Your task to perform on an android device: check storage Image 0: 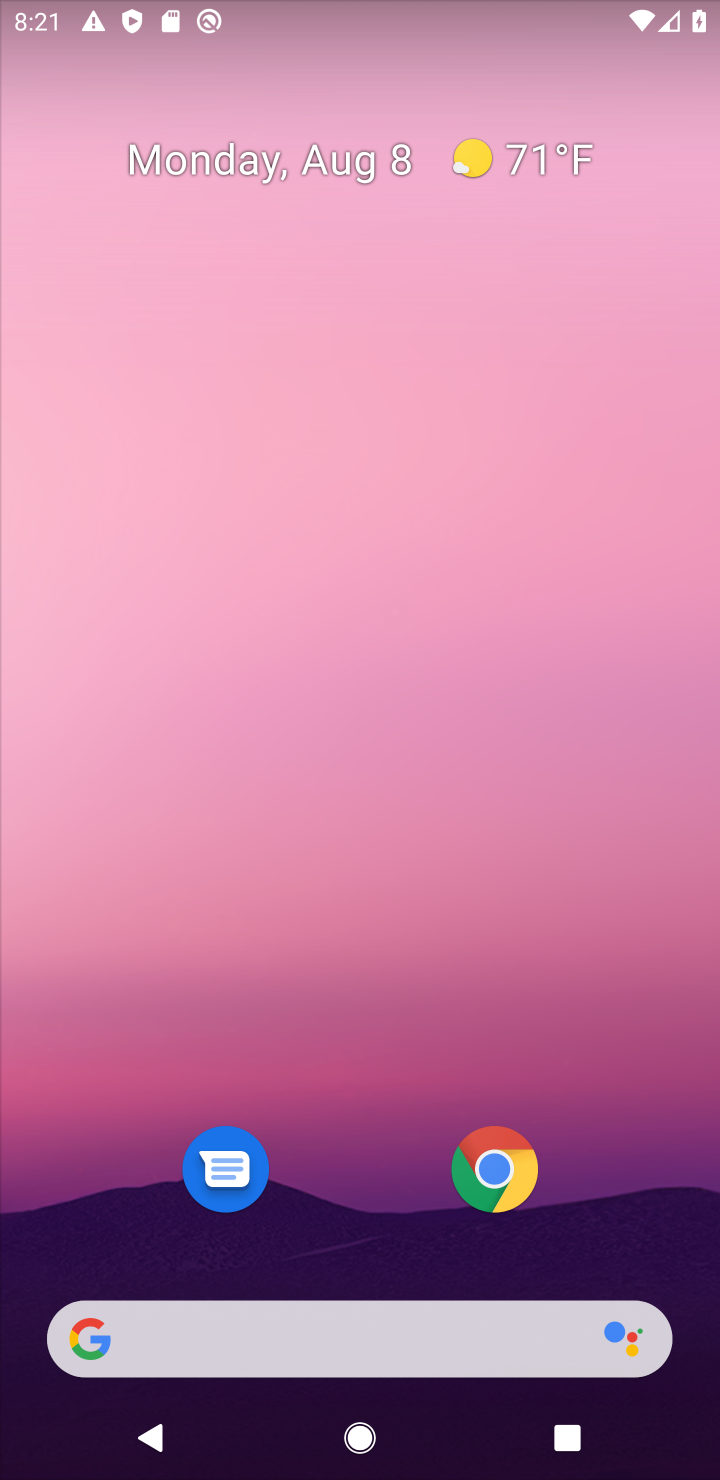
Step 0: drag from (456, 1214) to (533, 51)
Your task to perform on an android device: check storage Image 1: 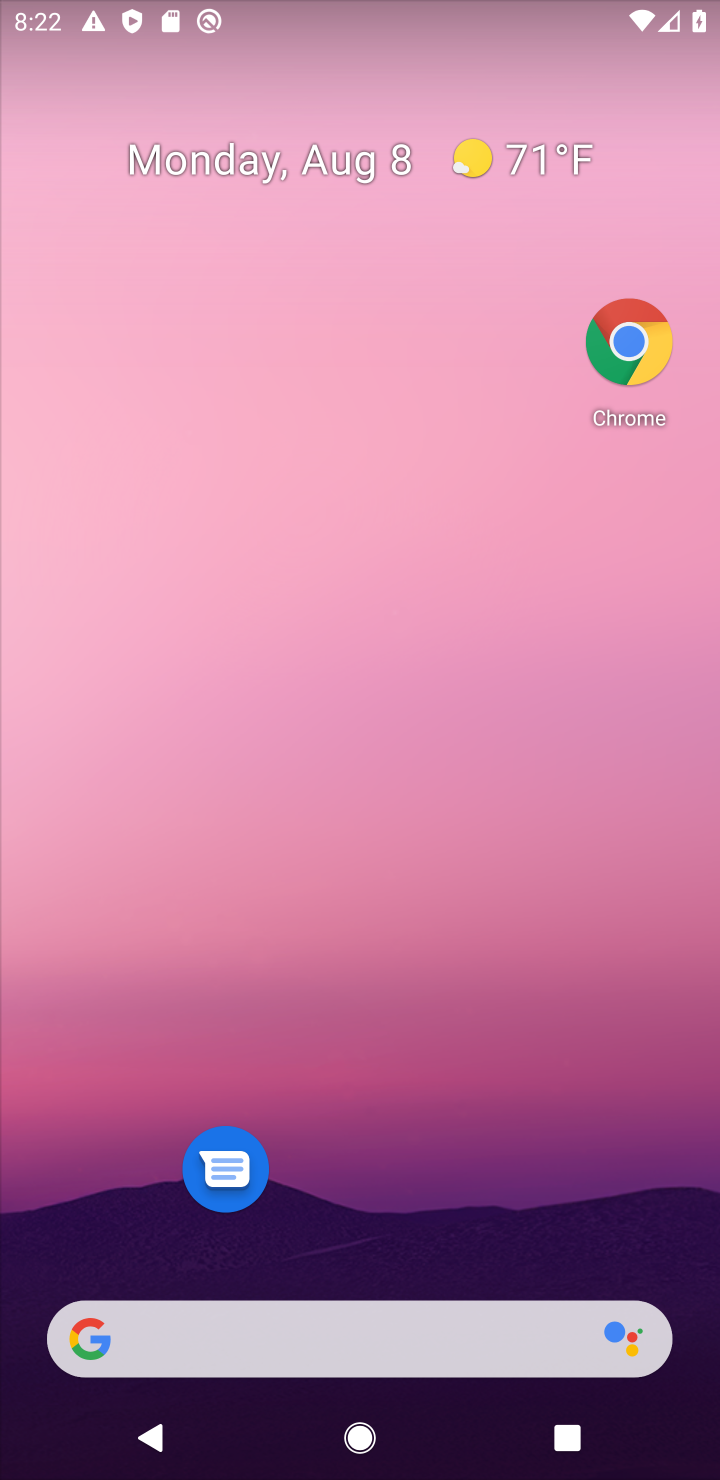
Step 1: drag from (406, 1143) to (603, 6)
Your task to perform on an android device: check storage Image 2: 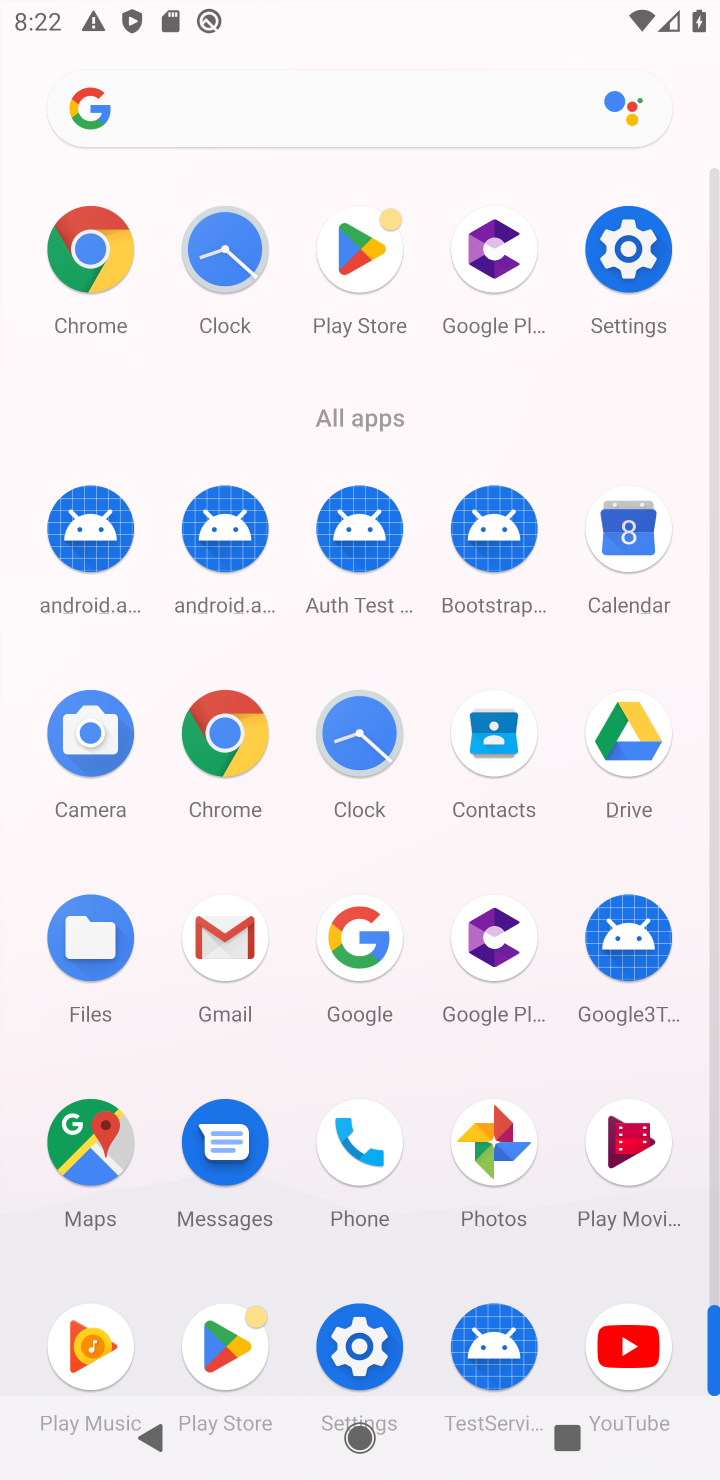
Step 2: click (642, 267)
Your task to perform on an android device: check storage Image 3: 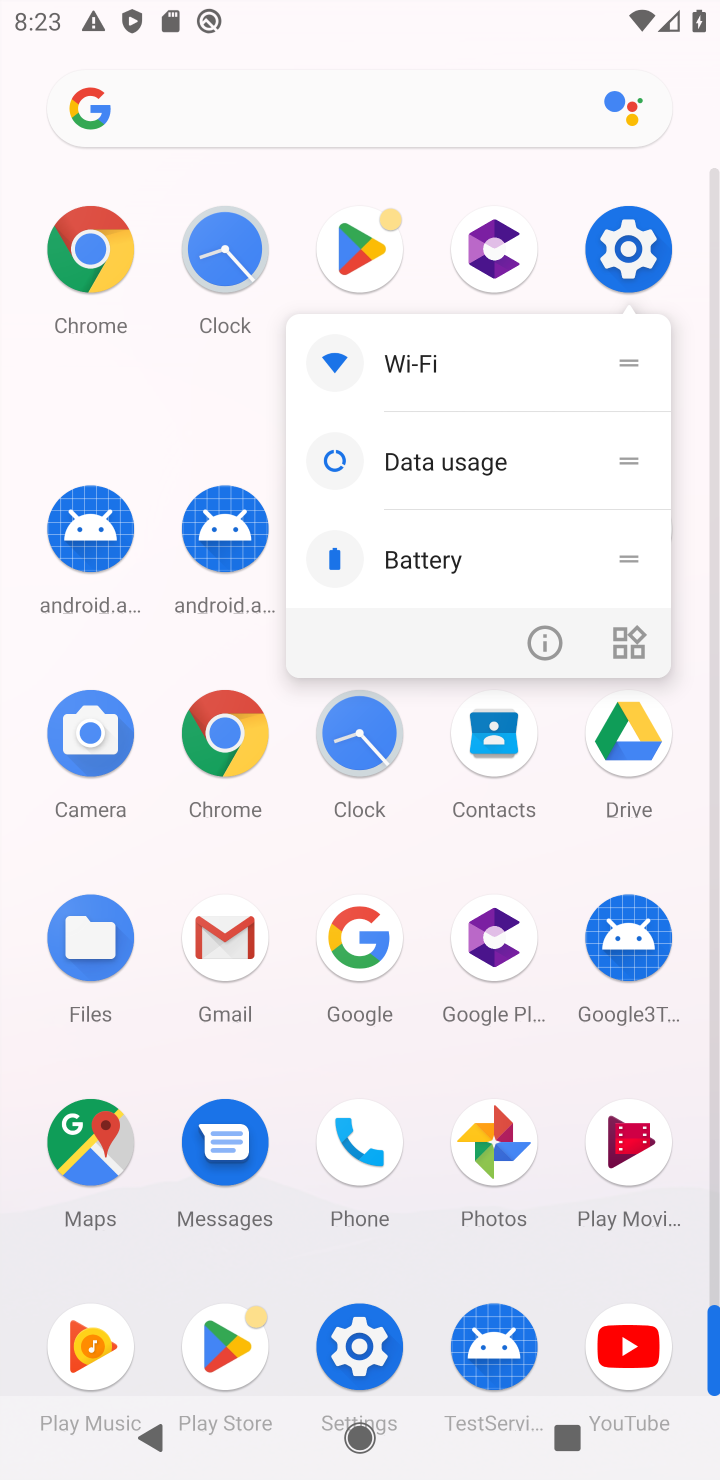
Step 3: click (659, 236)
Your task to perform on an android device: check storage Image 4: 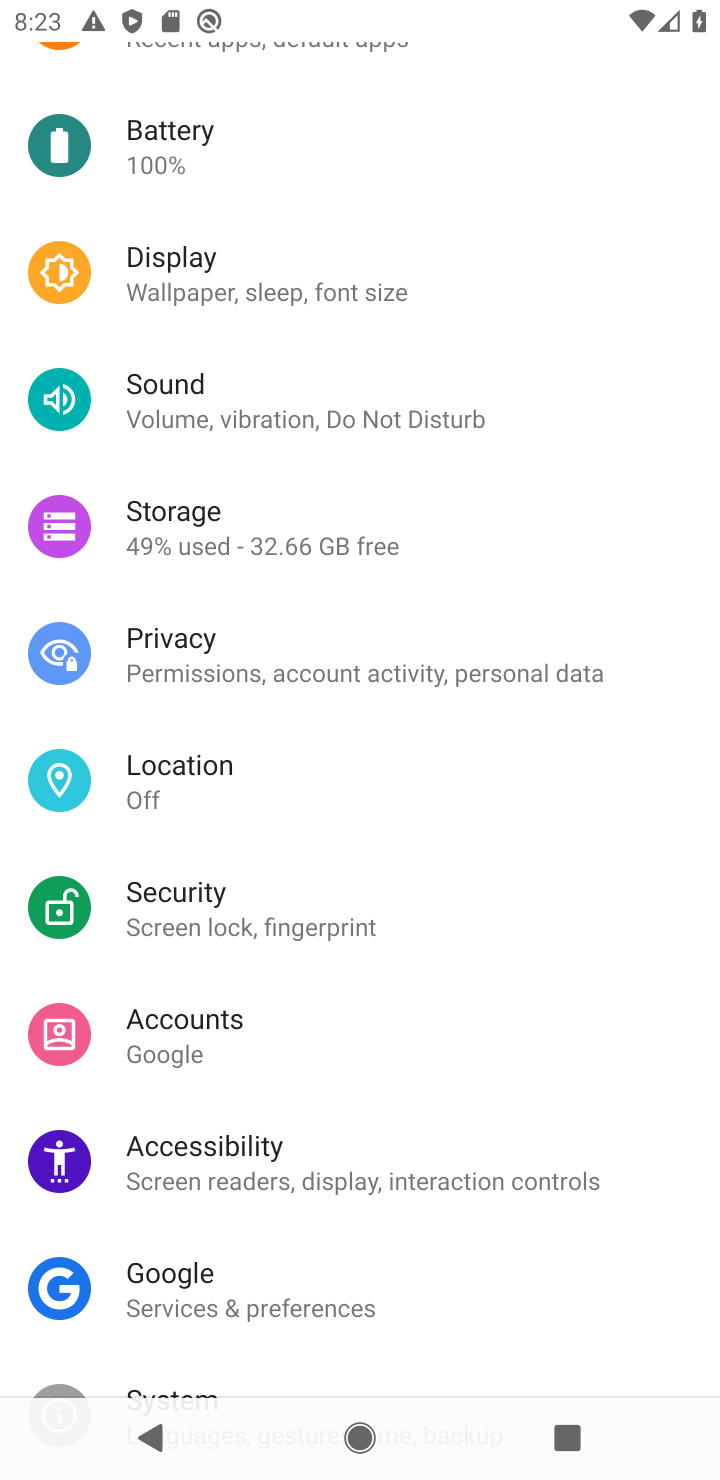
Step 4: click (257, 513)
Your task to perform on an android device: check storage Image 5: 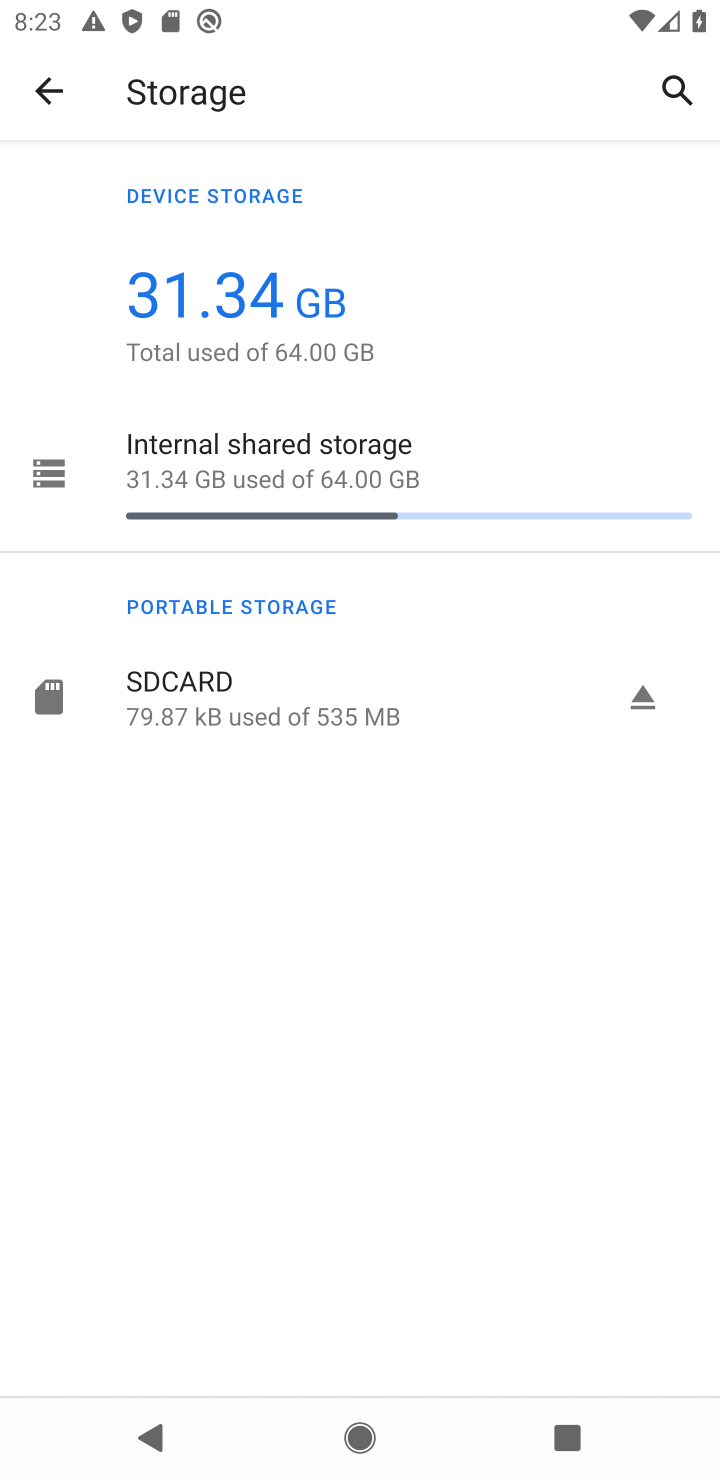
Step 5: task complete